Your task to perform on an android device: Open the web browser Image 0: 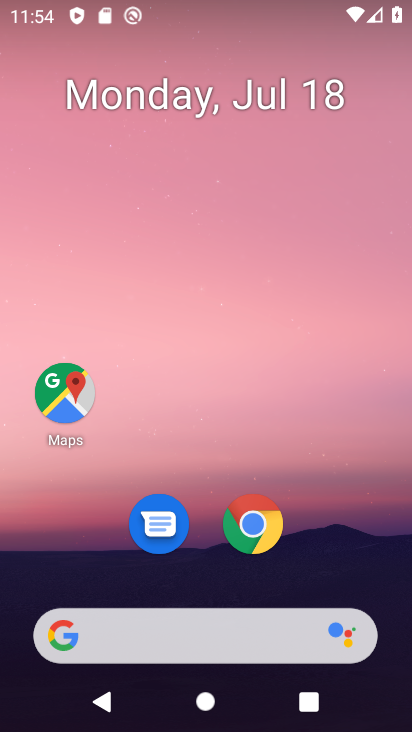
Step 0: click (223, 622)
Your task to perform on an android device: Open the web browser Image 1: 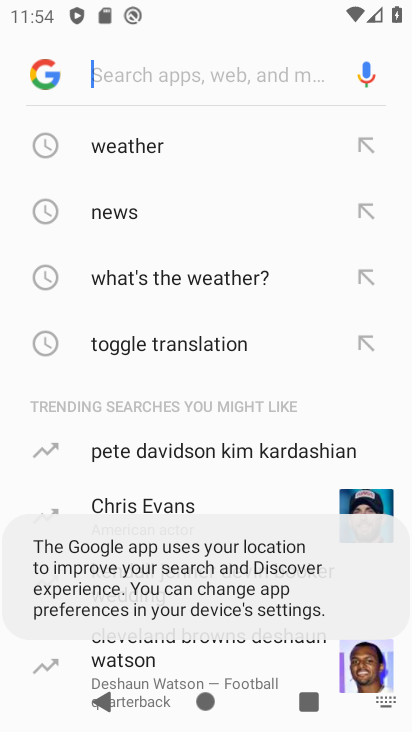
Step 1: task complete